Your task to perform on an android device: Open privacy settings Image 0: 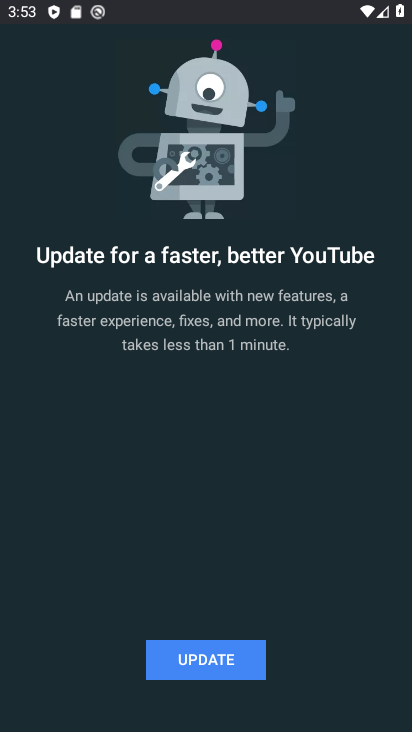
Step 0: press back button
Your task to perform on an android device: Open privacy settings Image 1: 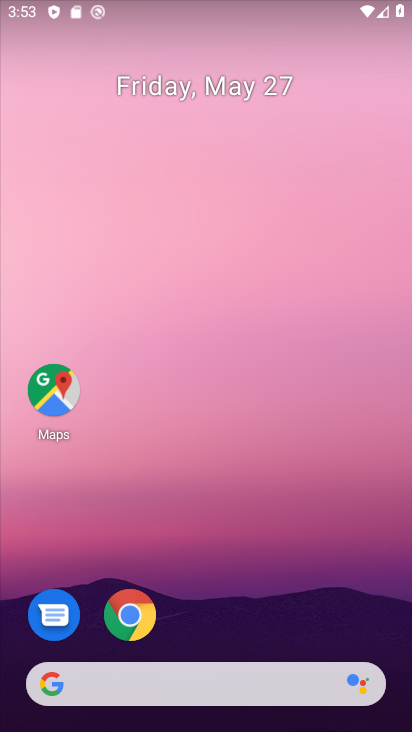
Step 1: click (140, 628)
Your task to perform on an android device: Open privacy settings Image 2: 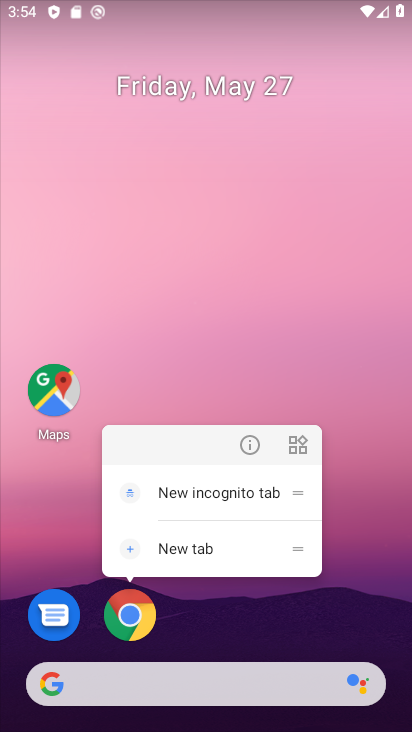
Step 2: click (112, 607)
Your task to perform on an android device: Open privacy settings Image 3: 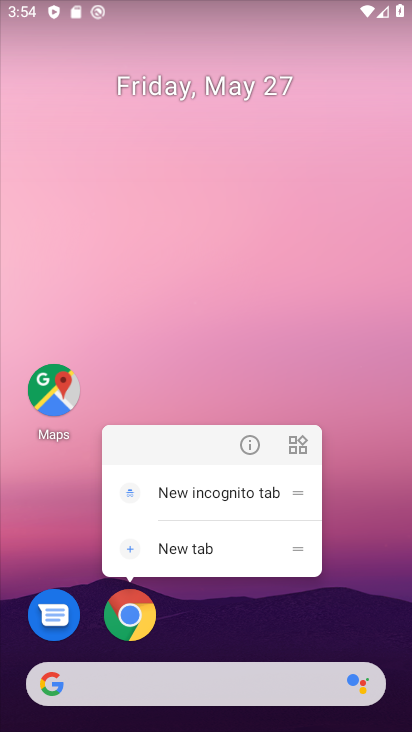
Step 3: click (137, 636)
Your task to perform on an android device: Open privacy settings Image 4: 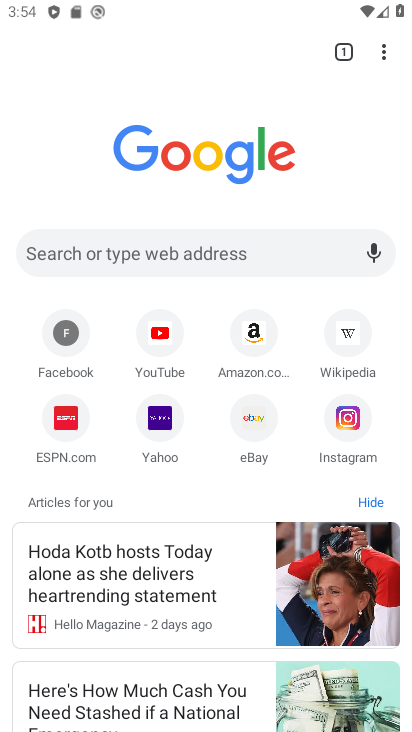
Step 4: drag from (393, 46) to (310, 419)
Your task to perform on an android device: Open privacy settings Image 5: 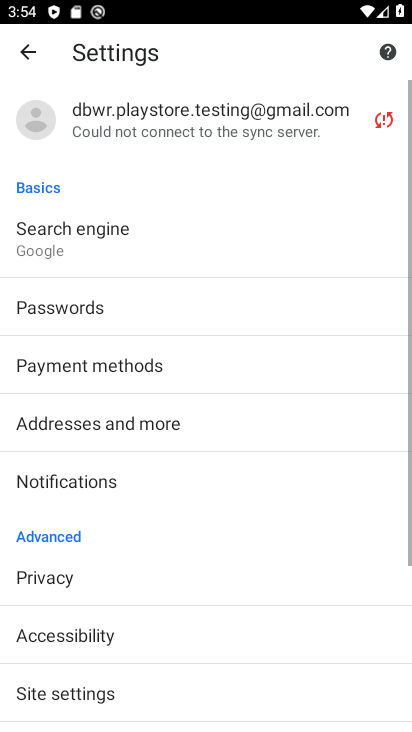
Step 5: drag from (99, 604) to (260, 243)
Your task to perform on an android device: Open privacy settings Image 6: 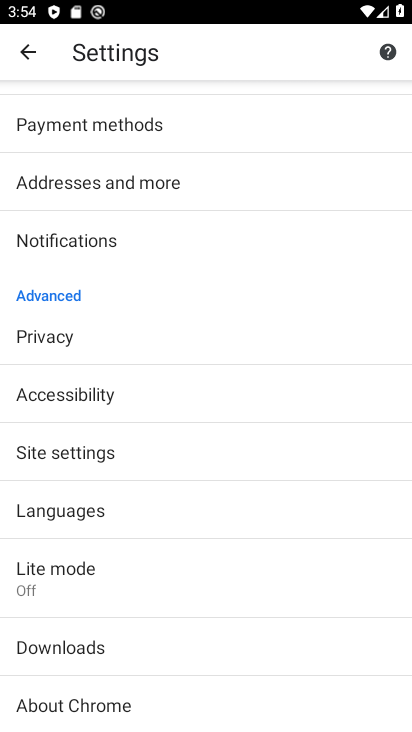
Step 6: click (92, 333)
Your task to perform on an android device: Open privacy settings Image 7: 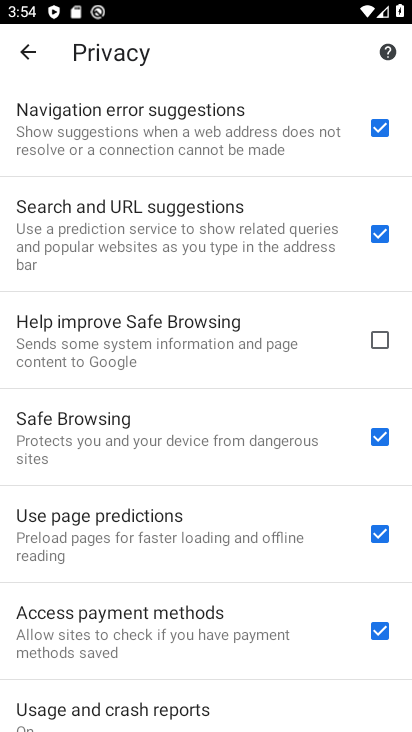
Step 7: task complete